Your task to perform on an android device: find which apps use the phone's location Image 0: 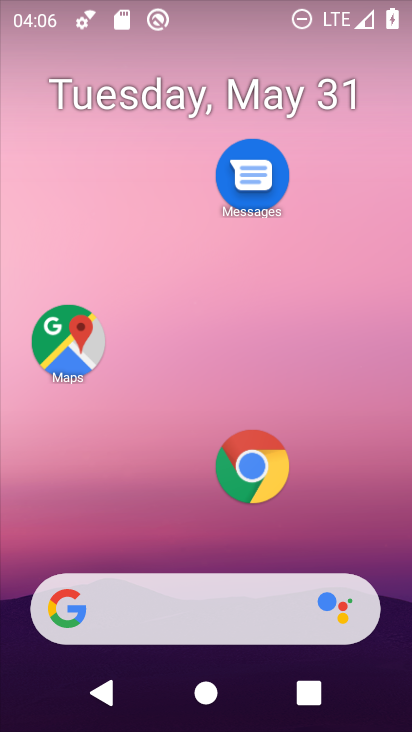
Step 0: drag from (114, 553) to (271, 118)
Your task to perform on an android device: find which apps use the phone's location Image 1: 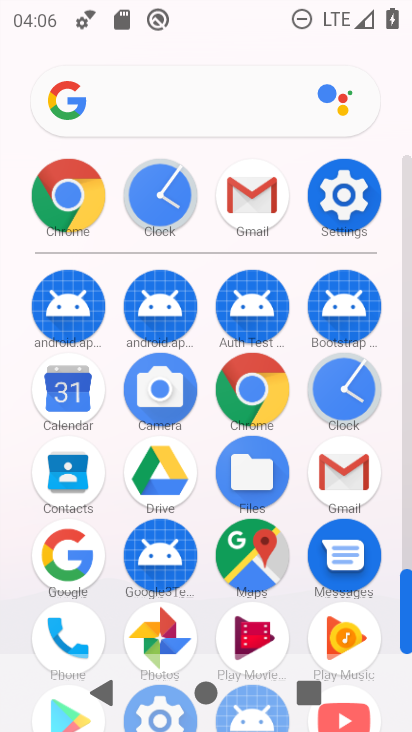
Step 1: click (367, 201)
Your task to perform on an android device: find which apps use the phone's location Image 2: 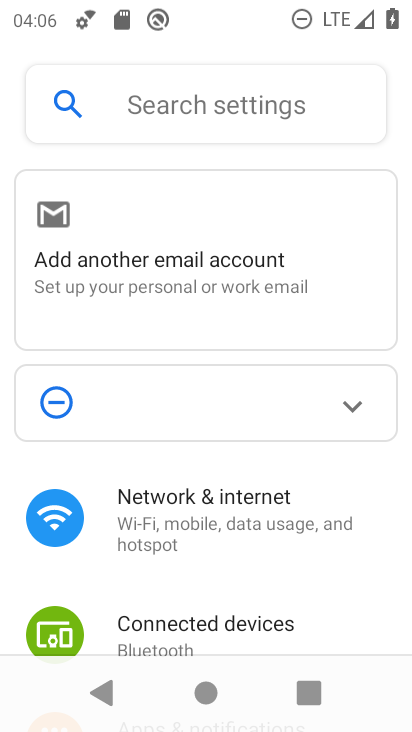
Step 2: drag from (178, 583) to (277, 40)
Your task to perform on an android device: find which apps use the phone's location Image 3: 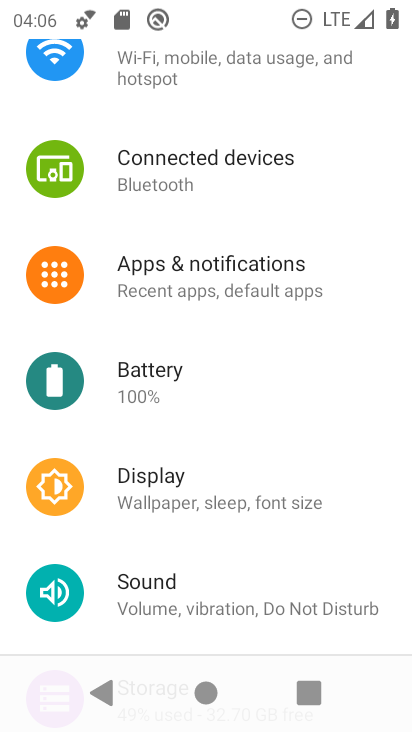
Step 3: drag from (159, 565) to (234, 110)
Your task to perform on an android device: find which apps use the phone's location Image 4: 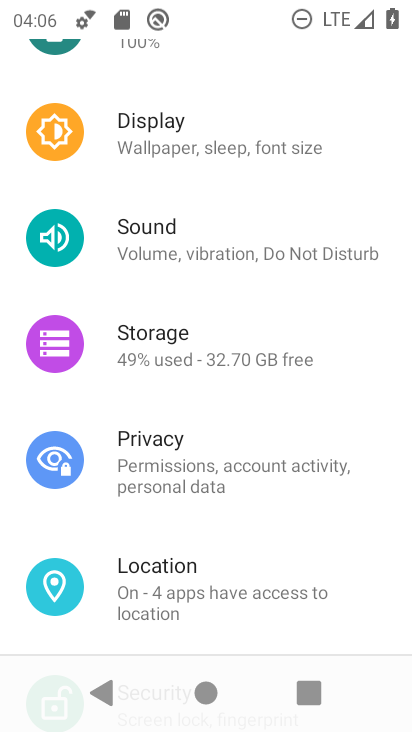
Step 4: click (127, 597)
Your task to perform on an android device: find which apps use the phone's location Image 5: 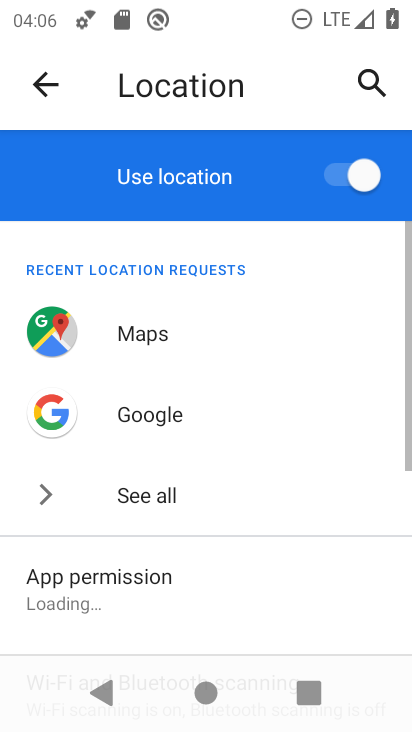
Step 5: click (62, 604)
Your task to perform on an android device: find which apps use the phone's location Image 6: 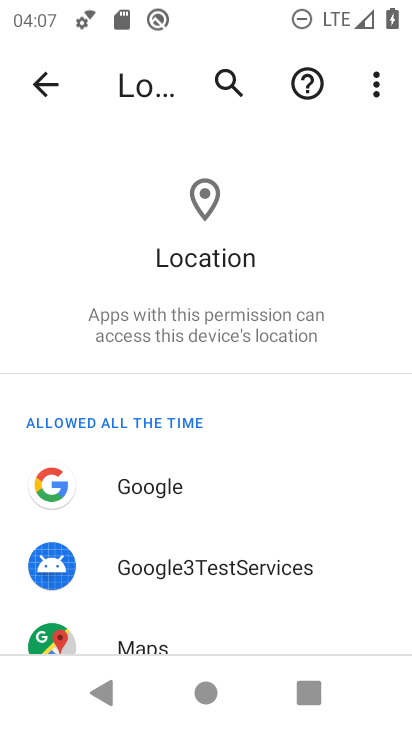
Step 6: task complete